Your task to perform on an android device: Set the phone to "Do not disturb". Image 0: 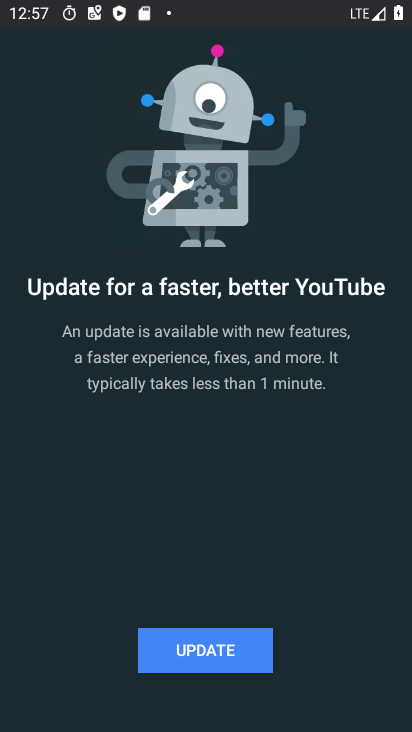
Step 0: drag from (168, 9) to (208, 453)
Your task to perform on an android device: Set the phone to "Do not disturb". Image 1: 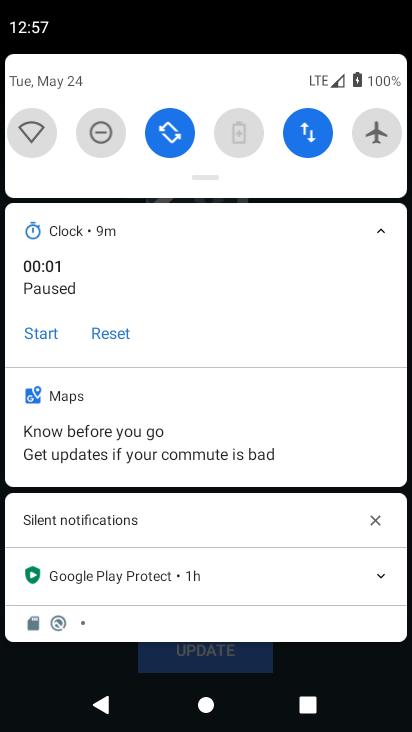
Step 1: click (107, 131)
Your task to perform on an android device: Set the phone to "Do not disturb". Image 2: 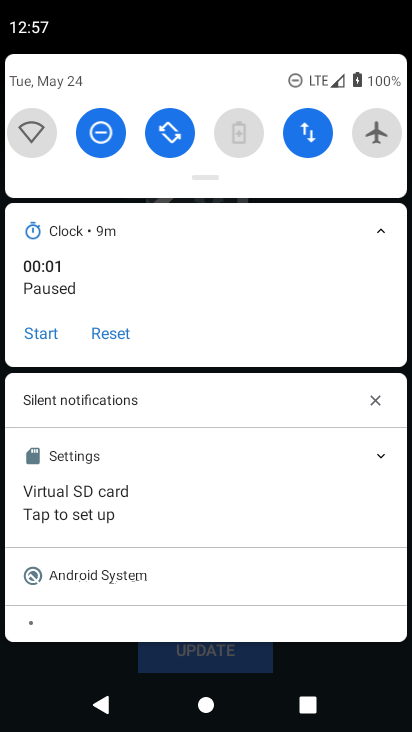
Step 2: task complete